Your task to perform on an android device: Open location settings Image 0: 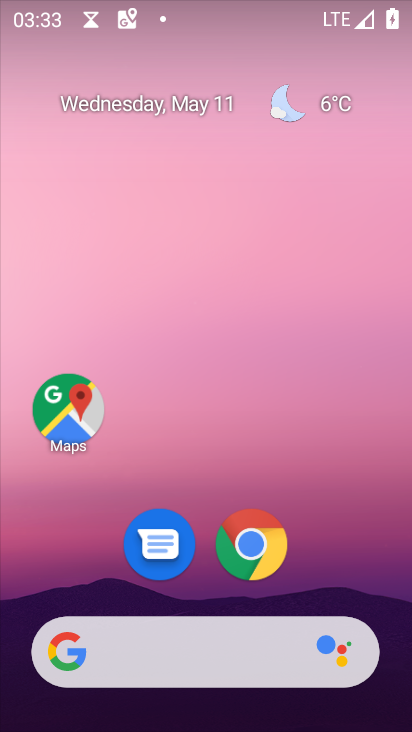
Step 0: drag from (346, 472) to (357, 29)
Your task to perform on an android device: Open location settings Image 1: 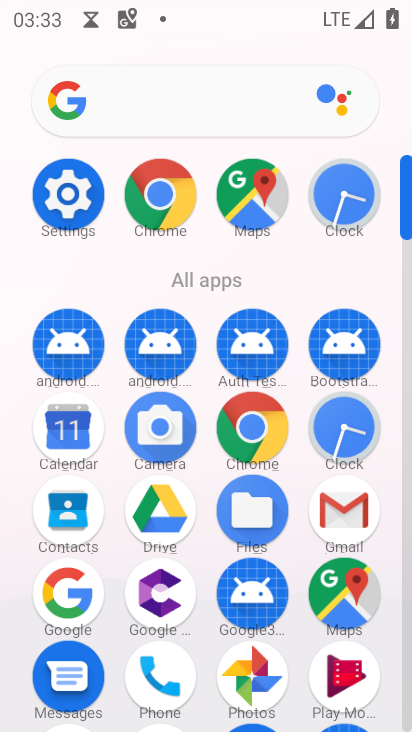
Step 1: click (60, 193)
Your task to perform on an android device: Open location settings Image 2: 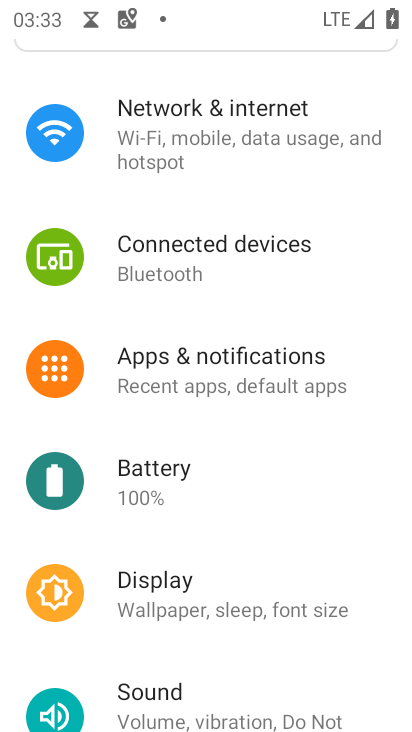
Step 2: drag from (229, 638) to (229, 274)
Your task to perform on an android device: Open location settings Image 3: 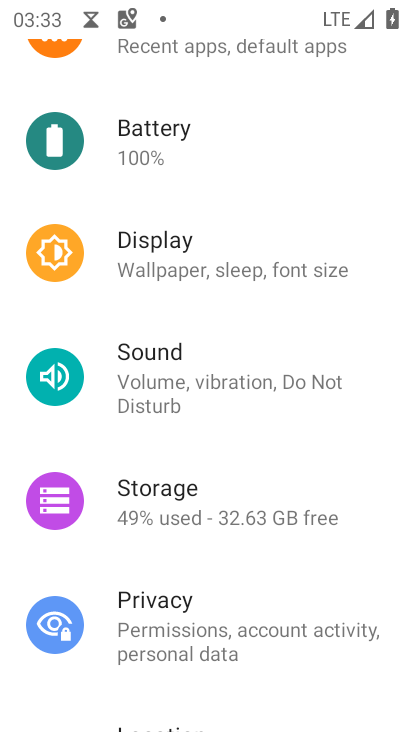
Step 3: drag from (197, 663) to (194, 296)
Your task to perform on an android device: Open location settings Image 4: 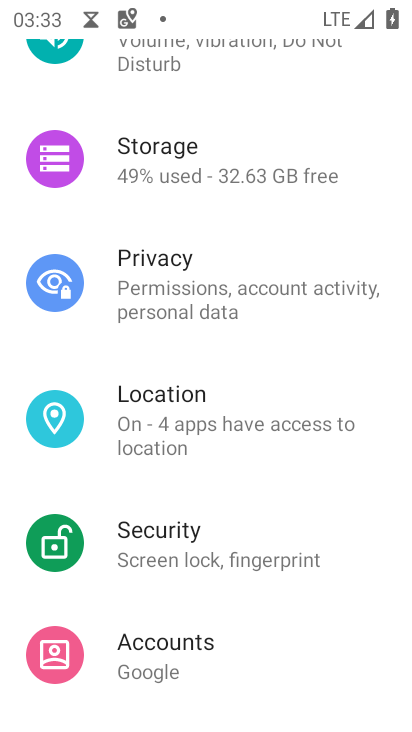
Step 4: click (212, 413)
Your task to perform on an android device: Open location settings Image 5: 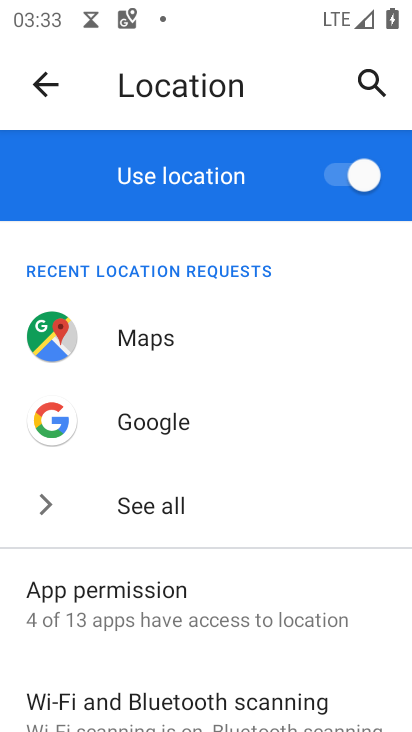
Step 5: task complete